Your task to perform on an android device: see creations saved in the google photos Image 0: 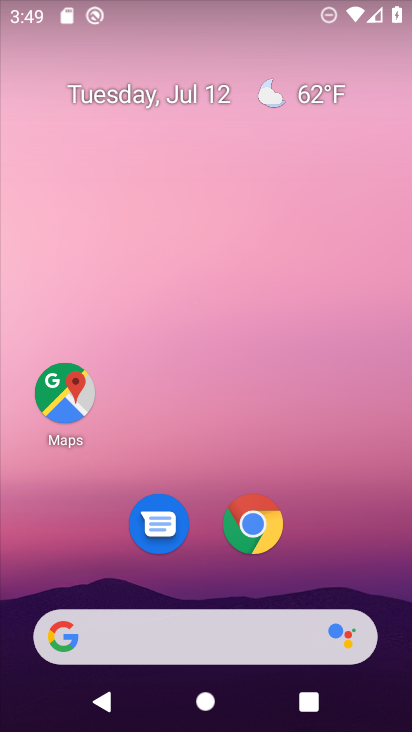
Step 0: drag from (334, 511) to (326, 40)
Your task to perform on an android device: see creations saved in the google photos Image 1: 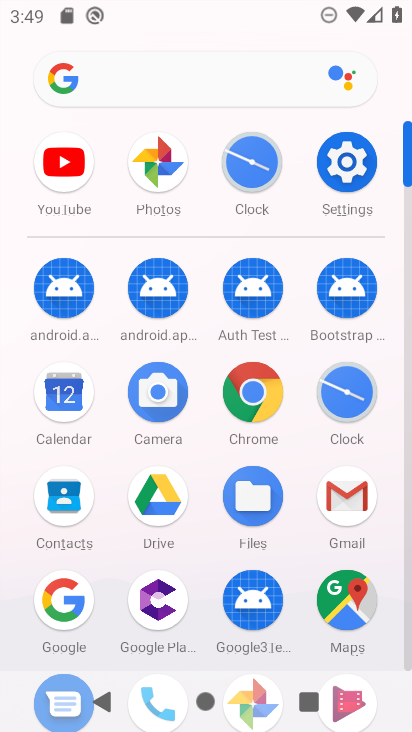
Step 1: click (154, 165)
Your task to perform on an android device: see creations saved in the google photos Image 2: 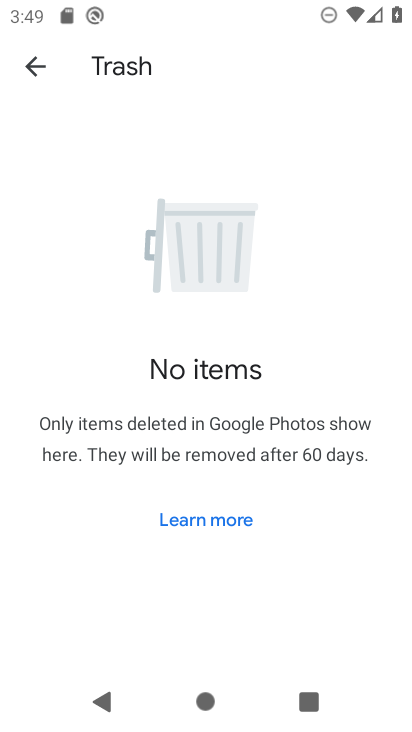
Step 2: click (35, 63)
Your task to perform on an android device: see creations saved in the google photos Image 3: 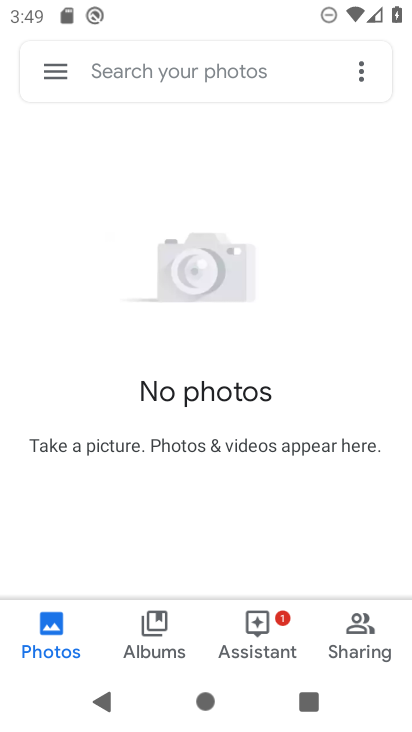
Step 3: click (134, 70)
Your task to perform on an android device: see creations saved in the google photos Image 4: 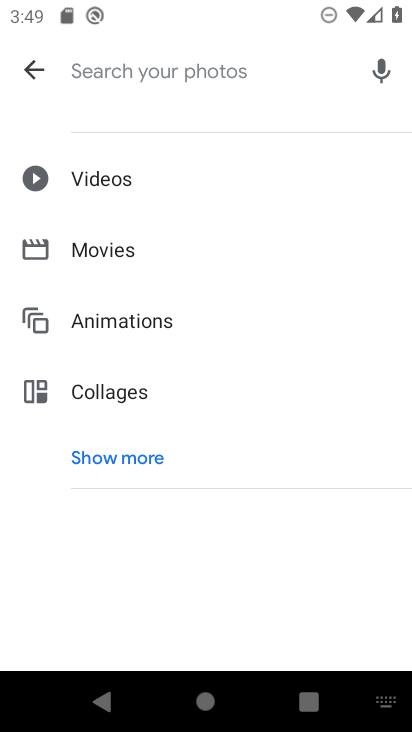
Step 4: click (113, 454)
Your task to perform on an android device: see creations saved in the google photos Image 5: 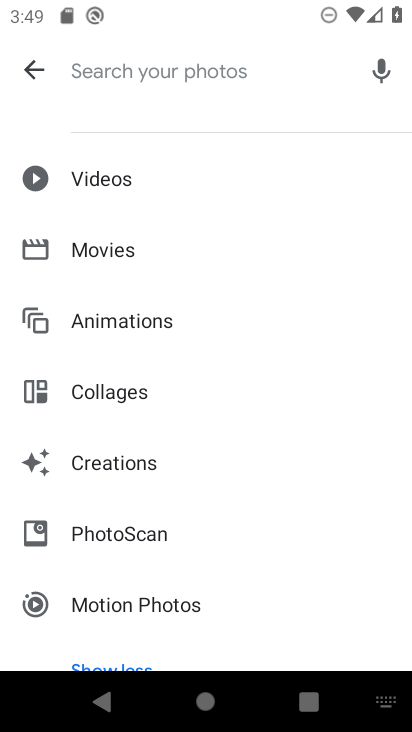
Step 5: click (115, 464)
Your task to perform on an android device: see creations saved in the google photos Image 6: 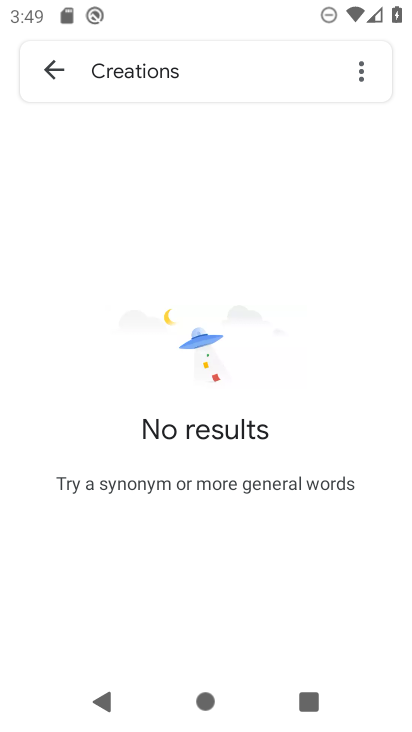
Step 6: task complete